Your task to perform on an android device: turn on location history Image 0: 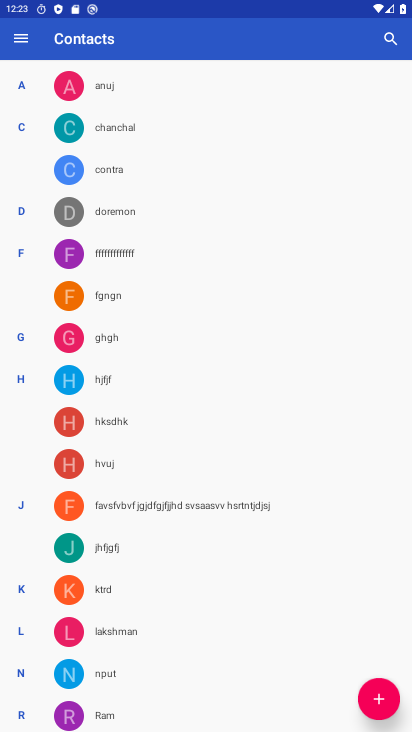
Step 0: press home button
Your task to perform on an android device: turn on location history Image 1: 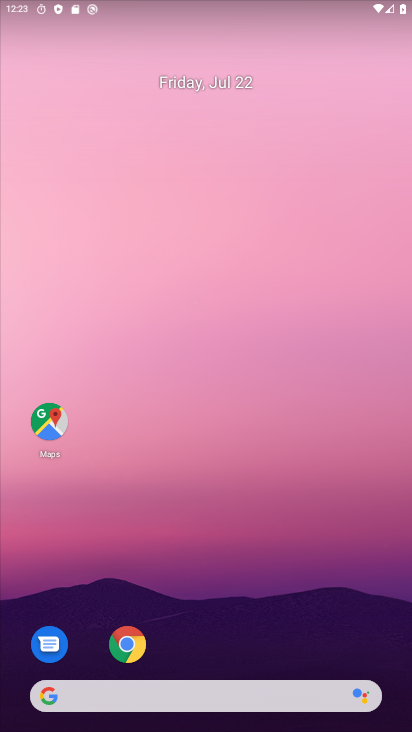
Step 1: drag from (196, 695) to (134, 88)
Your task to perform on an android device: turn on location history Image 2: 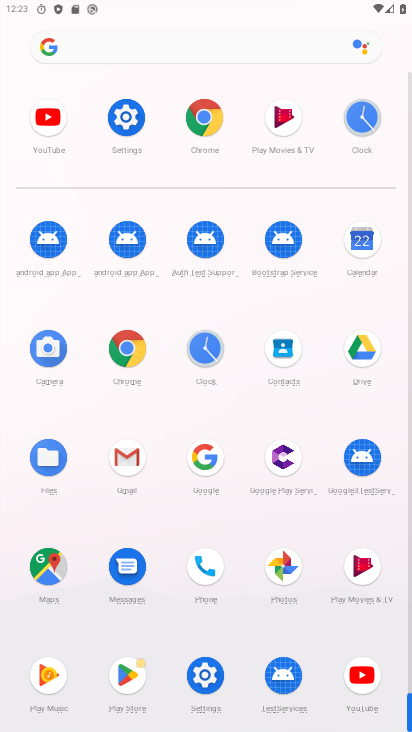
Step 2: click (90, 158)
Your task to perform on an android device: turn on location history Image 3: 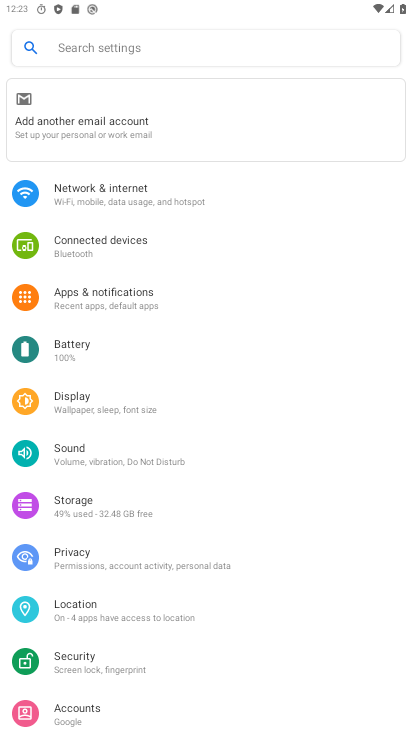
Step 3: click (130, 612)
Your task to perform on an android device: turn on location history Image 4: 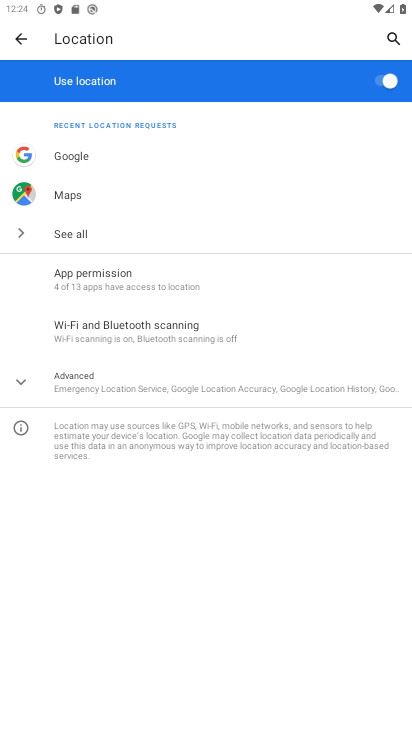
Step 4: click (209, 383)
Your task to perform on an android device: turn on location history Image 5: 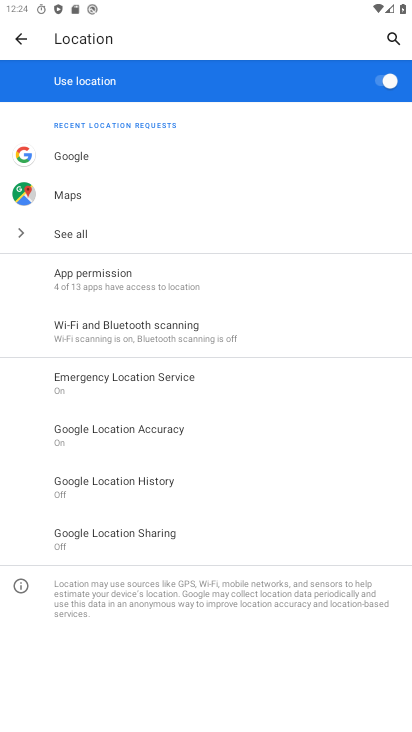
Step 5: click (140, 489)
Your task to perform on an android device: turn on location history Image 6: 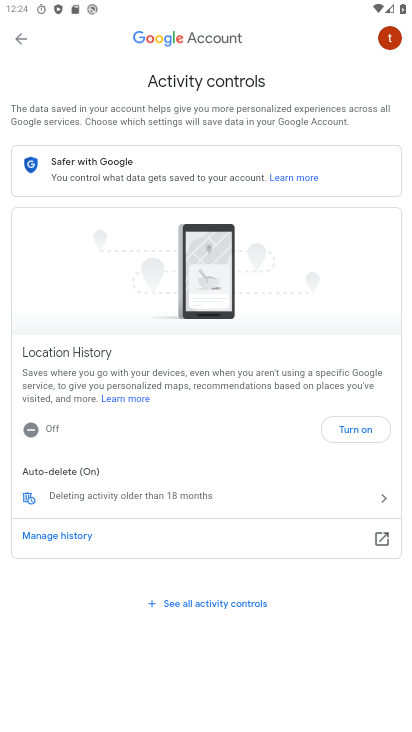
Step 6: click (347, 432)
Your task to perform on an android device: turn on location history Image 7: 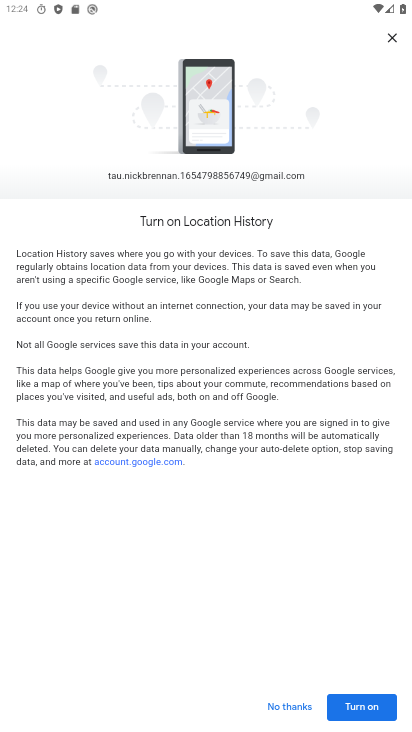
Step 7: click (363, 701)
Your task to perform on an android device: turn on location history Image 8: 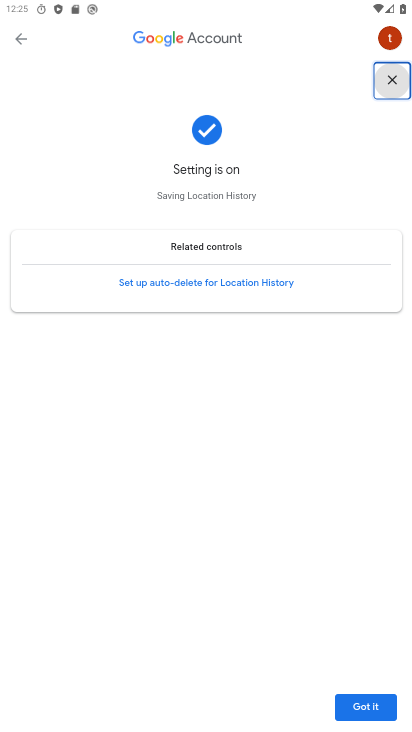
Step 8: click (358, 709)
Your task to perform on an android device: turn on location history Image 9: 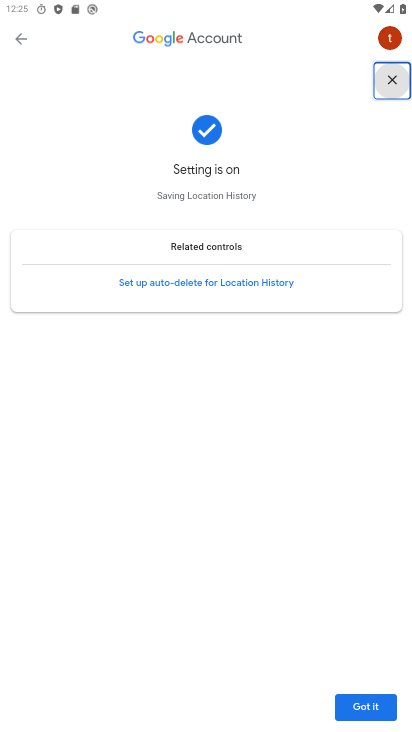
Step 9: click (363, 715)
Your task to perform on an android device: turn on location history Image 10: 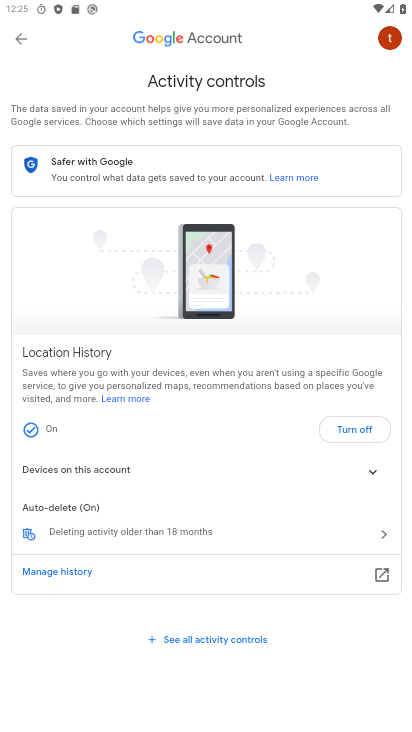
Step 10: task complete